Your task to perform on an android device: Search for vegetarian restaurants on Maps Image 0: 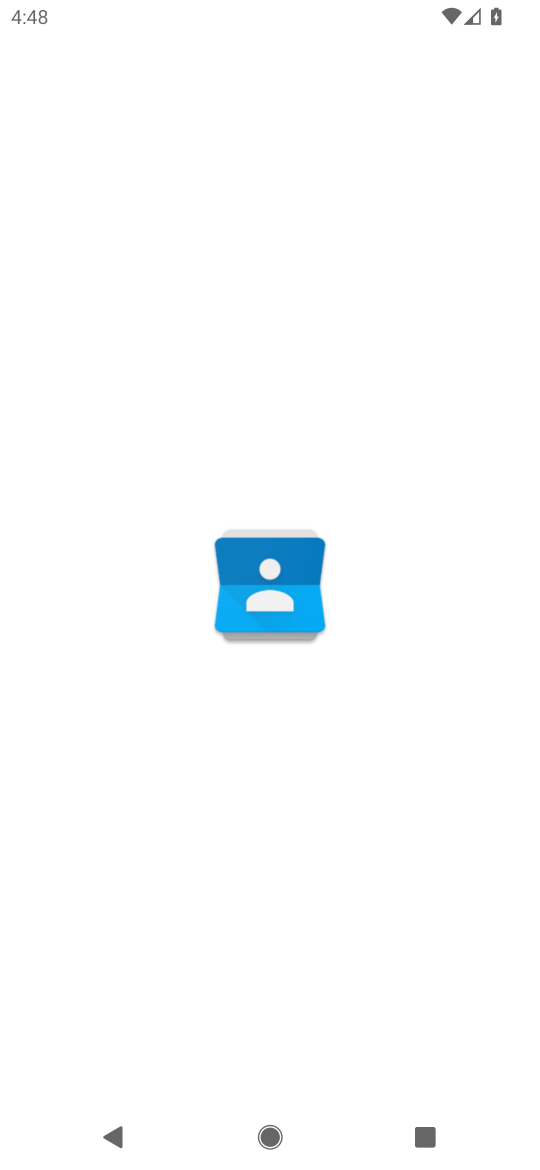
Step 0: press home button
Your task to perform on an android device: Search for vegetarian restaurants on Maps Image 1: 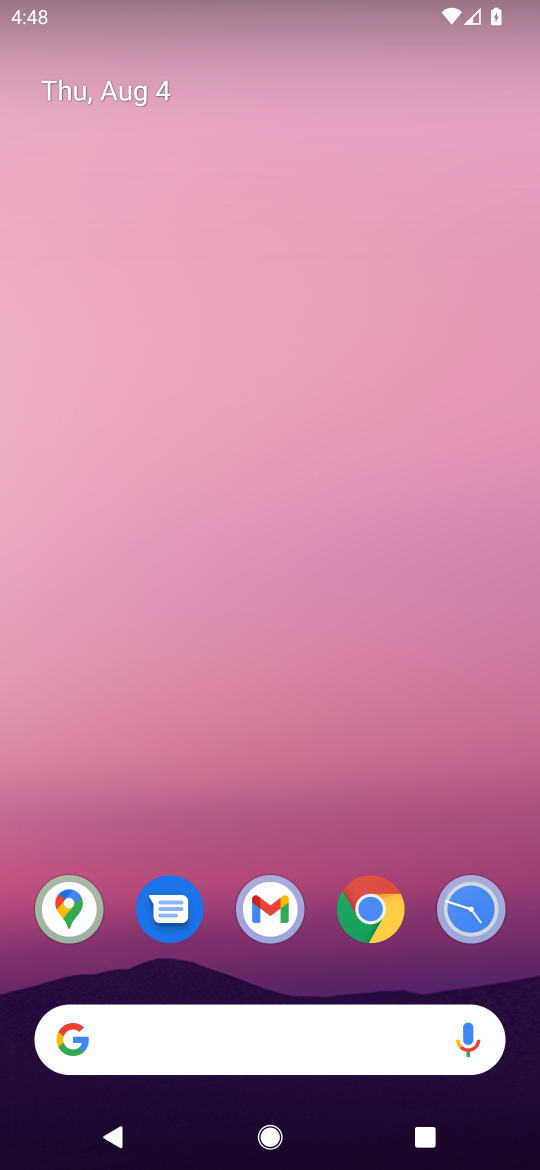
Step 1: press home button
Your task to perform on an android device: Search for vegetarian restaurants on Maps Image 2: 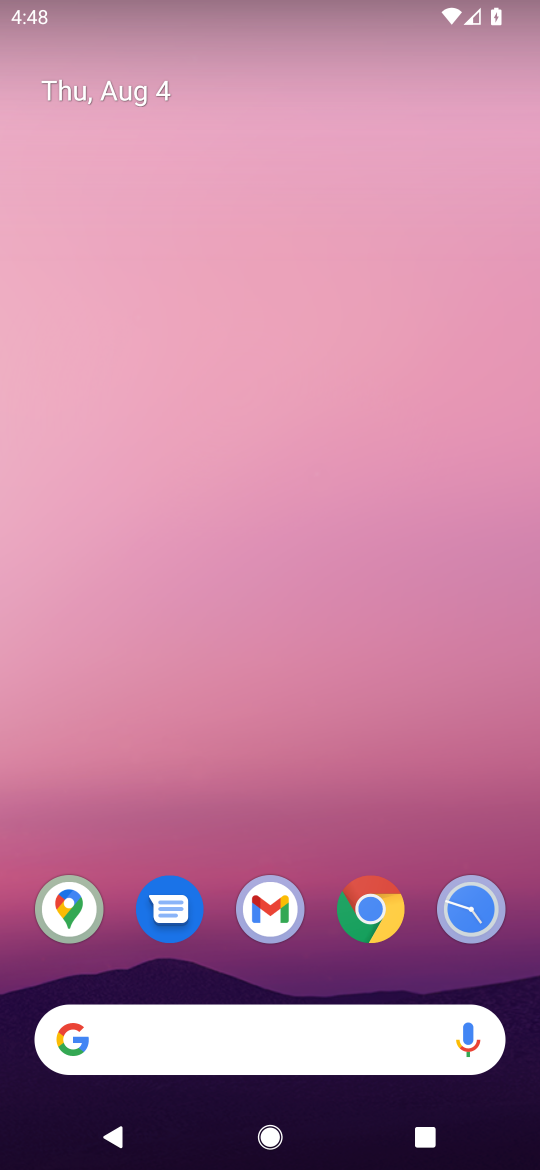
Step 2: click (60, 896)
Your task to perform on an android device: Search for vegetarian restaurants on Maps Image 3: 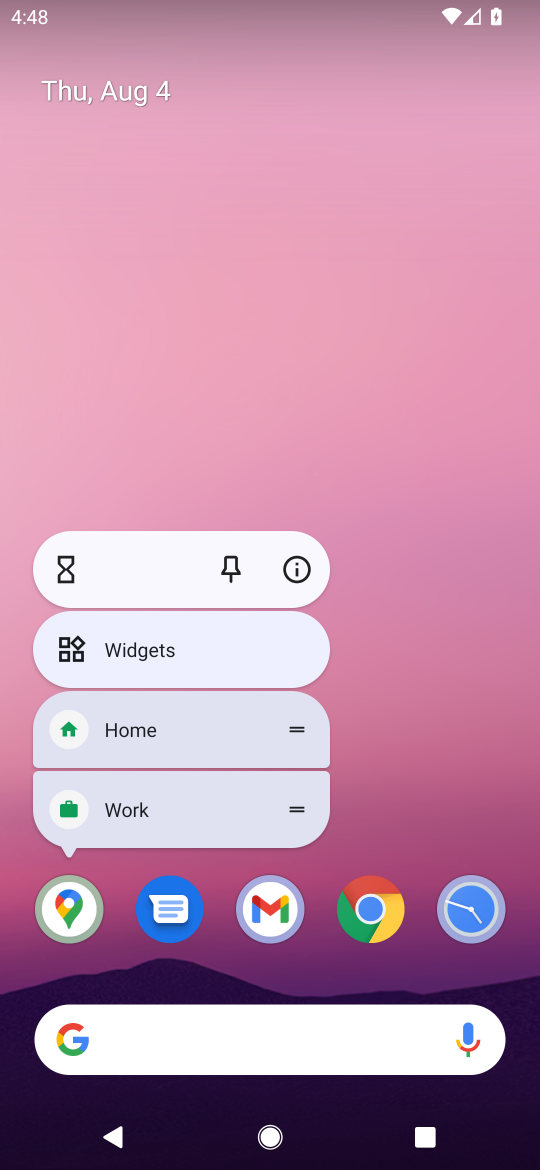
Step 3: click (60, 896)
Your task to perform on an android device: Search for vegetarian restaurants on Maps Image 4: 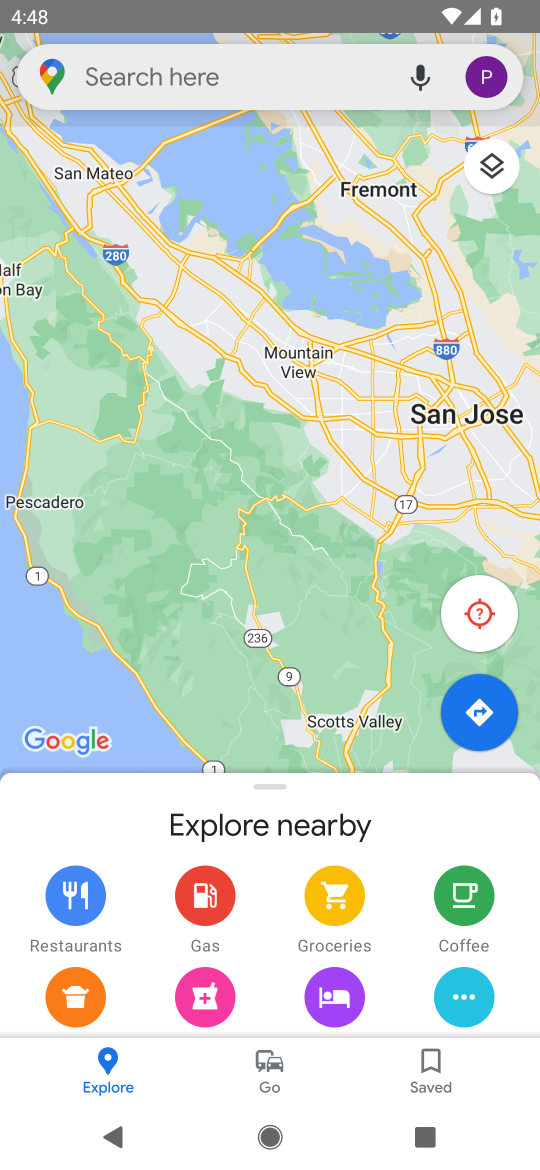
Step 4: press home button
Your task to perform on an android device: Search for vegetarian restaurants on Maps Image 5: 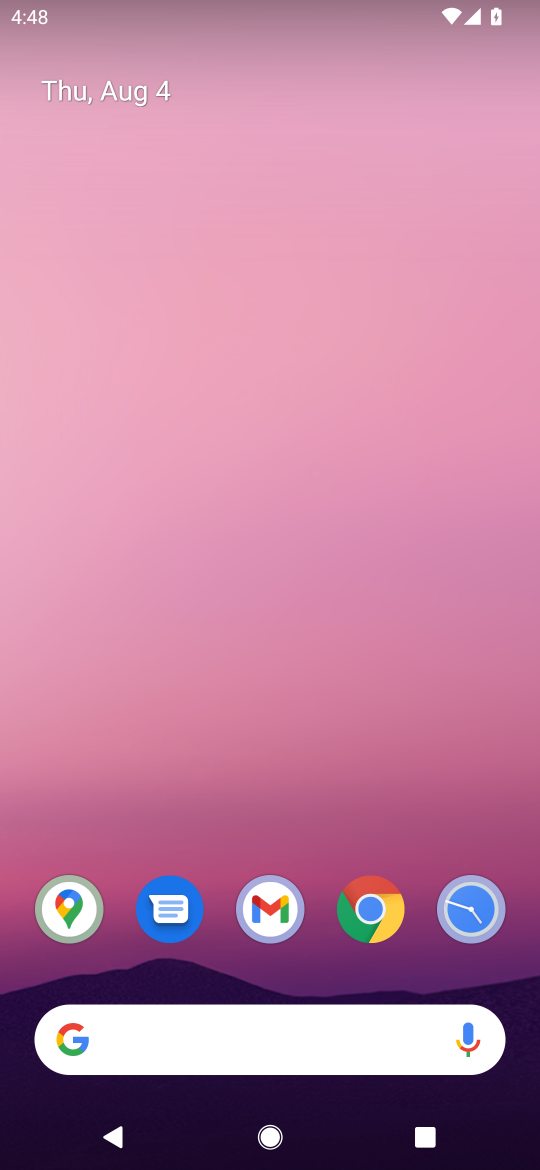
Step 5: click (63, 909)
Your task to perform on an android device: Search for vegetarian restaurants on Maps Image 6: 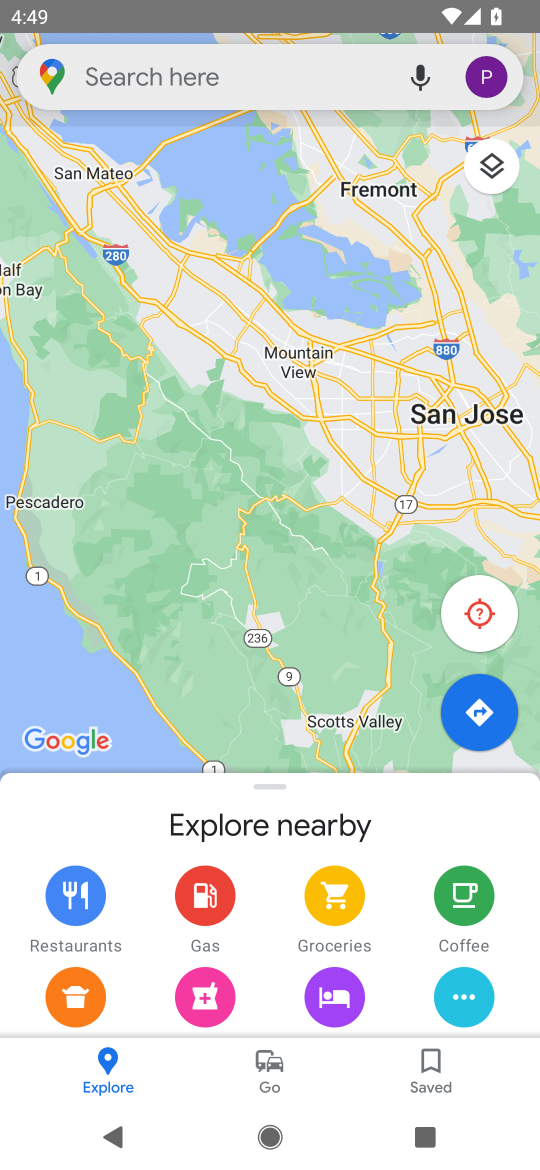
Step 6: click (169, 75)
Your task to perform on an android device: Search for vegetarian restaurants on Maps Image 7: 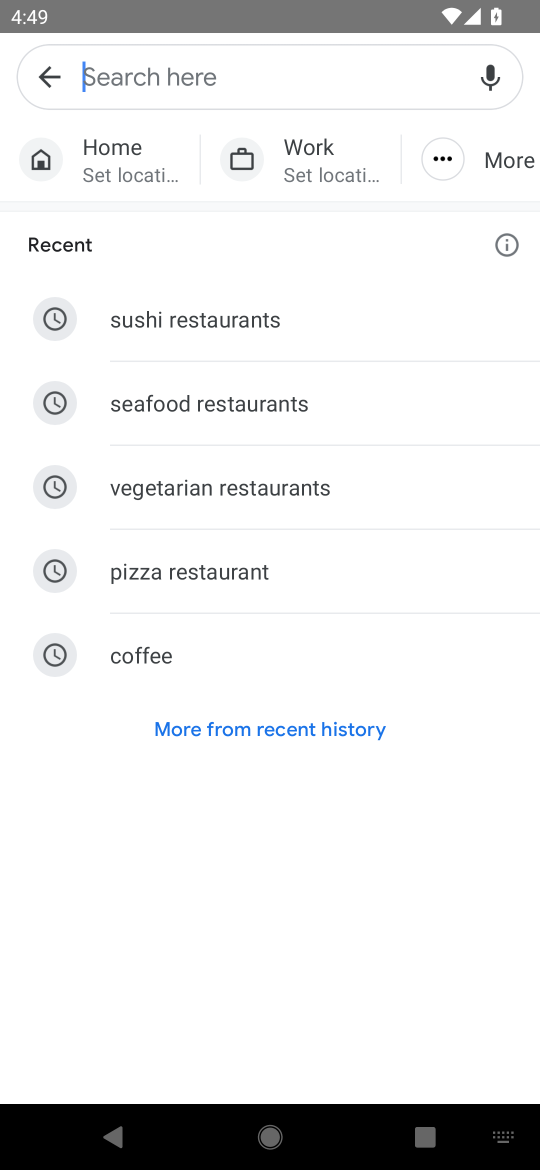
Step 7: type "vegetarian restaurants"
Your task to perform on an android device: Search for vegetarian restaurants on Maps Image 8: 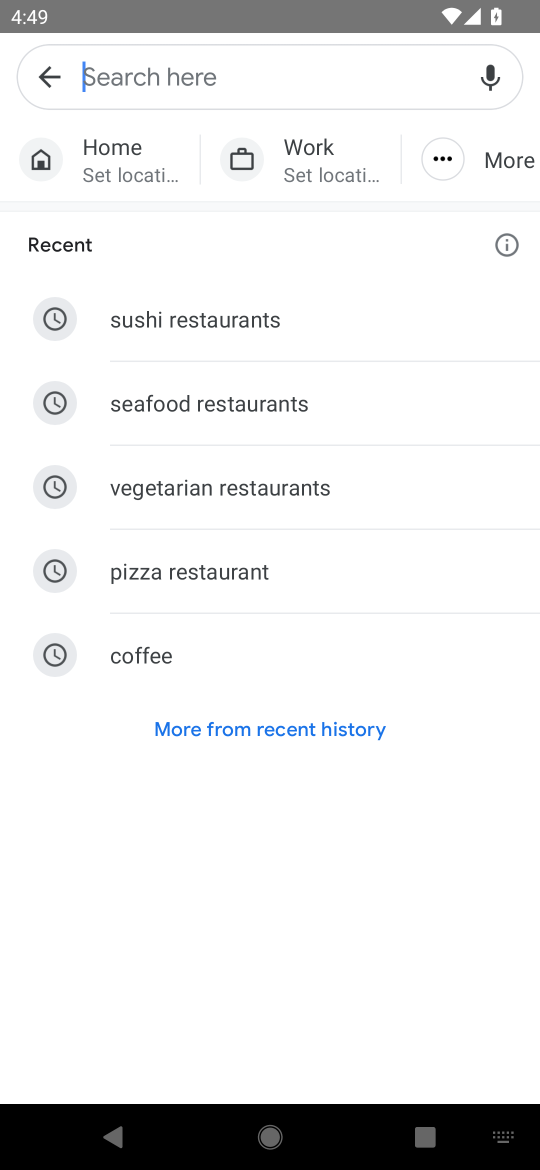
Step 8: click (166, 65)
Your task to perform on an android device: Search for vegetarian restaurants on Maps Image 9: 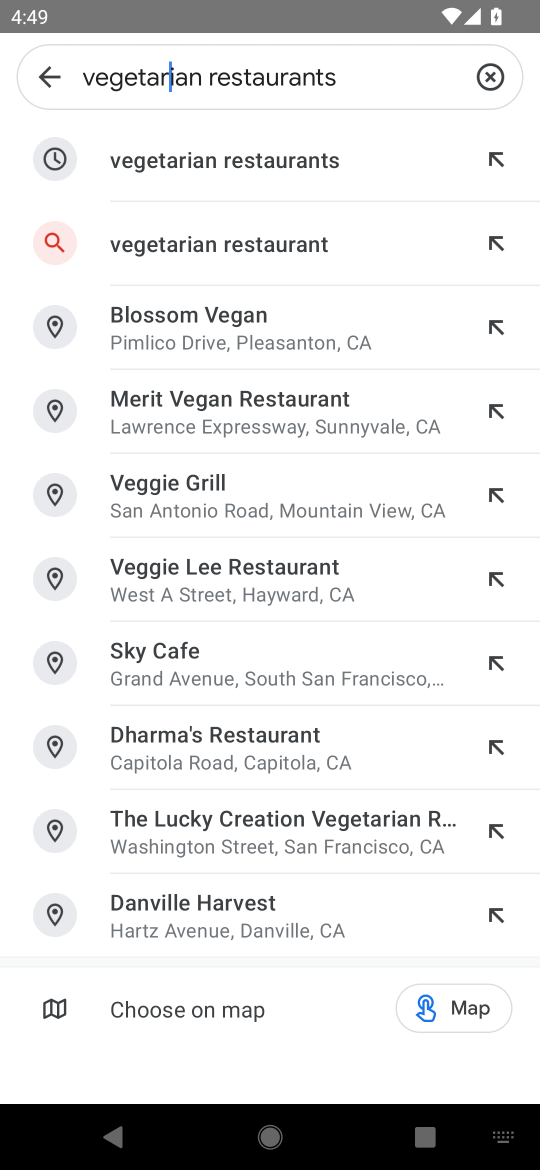
Step 9: click (229, 164)
Your task to perform on an android device: Search for vegetarian restaurants on Maps Image 10: 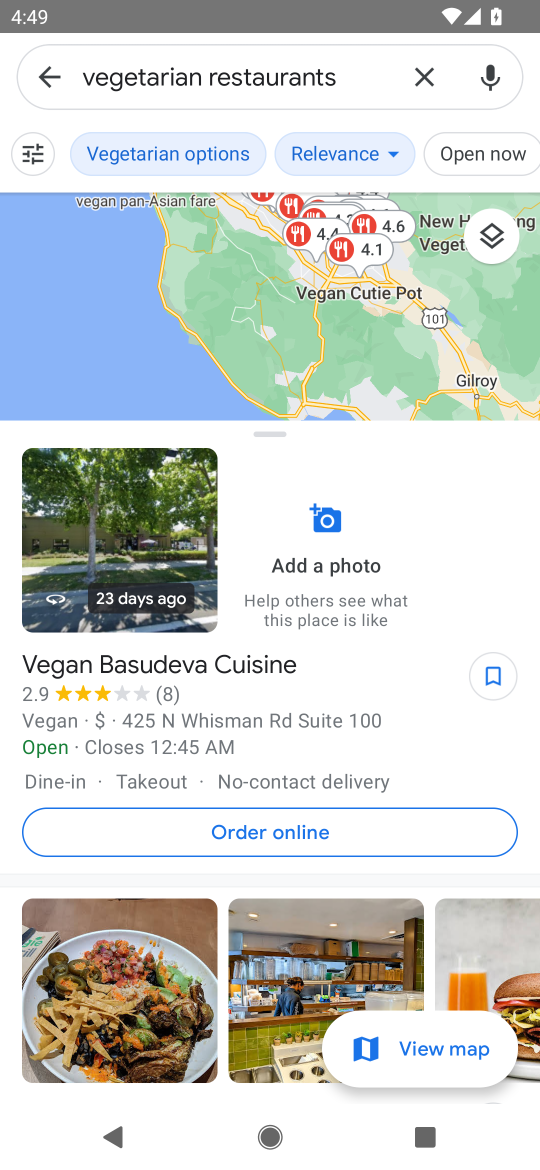
Step 10: task complete